Your task to perform on an android device: turn on wifi Image 0: 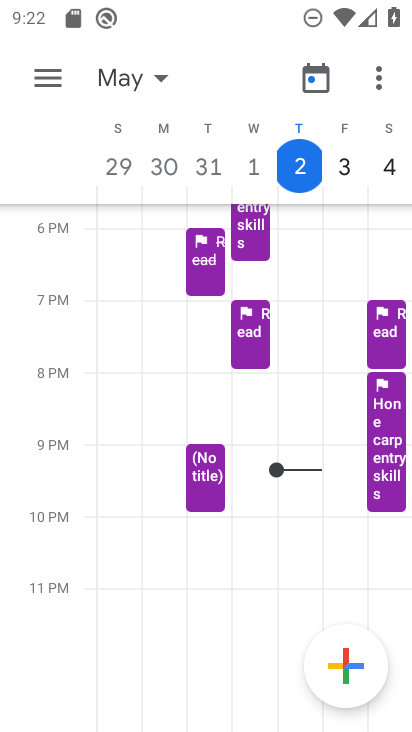
Step 0: task impossible